Your task to perform on an android device: move a message to another label in the gmail app Image 0: 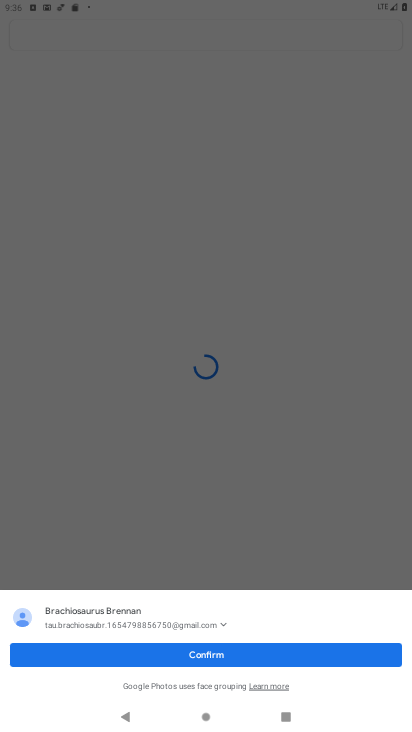
Step 0: press home button
Your task to perform on an android device: move a message to another label in the gmail app Image 1: 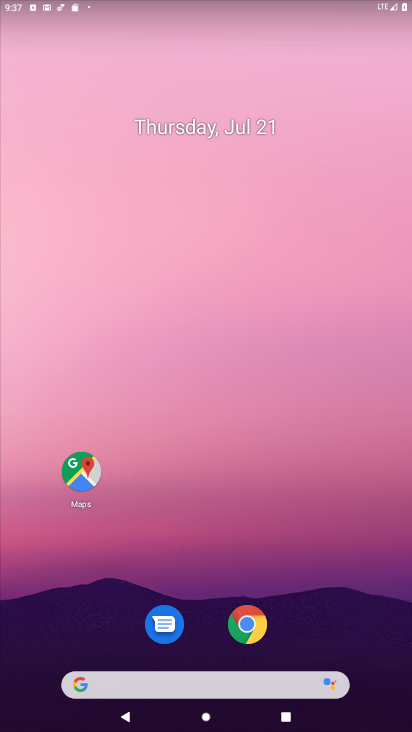
Step 1: drag from (1, 695) to (320, 88)
Your task to perform on an android device: move a message to another label in the gmail app Image 2: 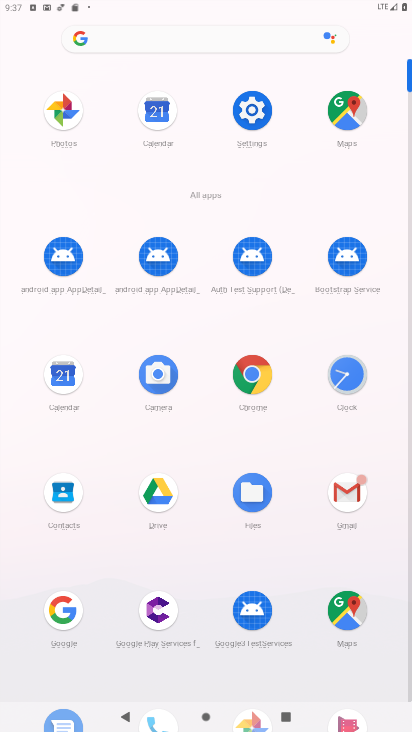
Step 2: click (351, 468)
Your task to perform on an android device: move a message to another label in the gmail app Image 3: 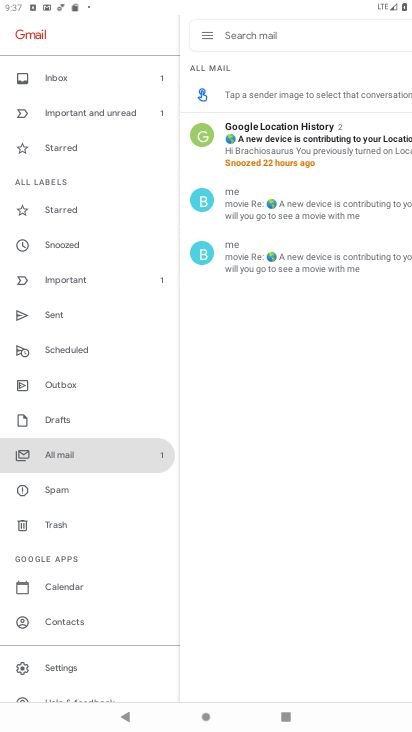
Step 3: task complete